Your task to perform on an android device: Open Youtube and go to the subscriptions tab Image 0: 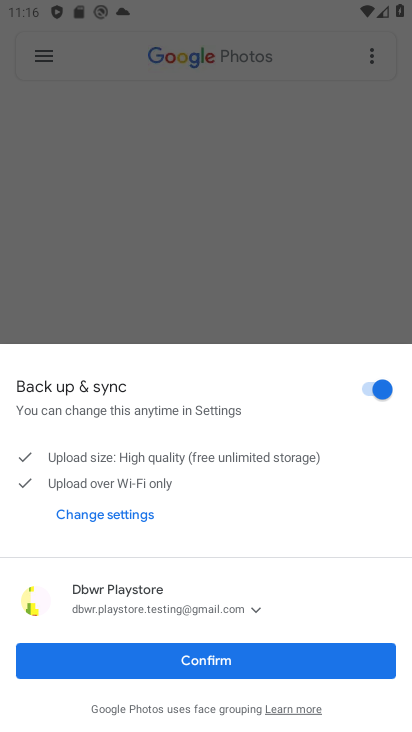
Step 0: press home button
Your task to perform on an android device: Open Youtube and go to the subscriptions tab Image 1: 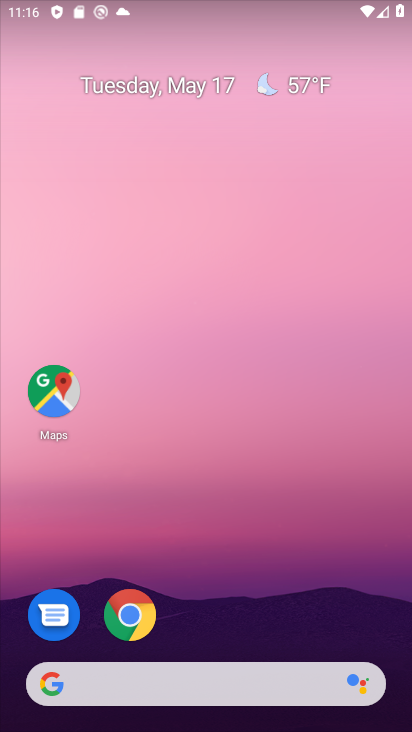
Step 1: drag from (333, 612) to (238, 10)
Your task to perform on an android device: Open Youtube and go to the subscriptions tab Image 2: 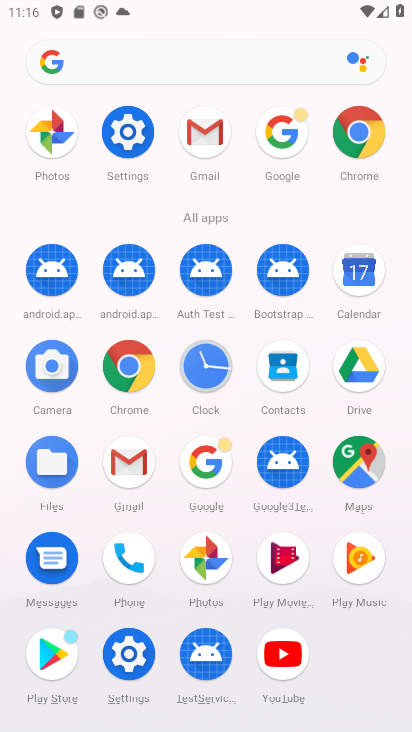
Step 2: click (292, 662)
Your task to perform on an android device: Open Youtube and go to the subscriptions tab Image 3: 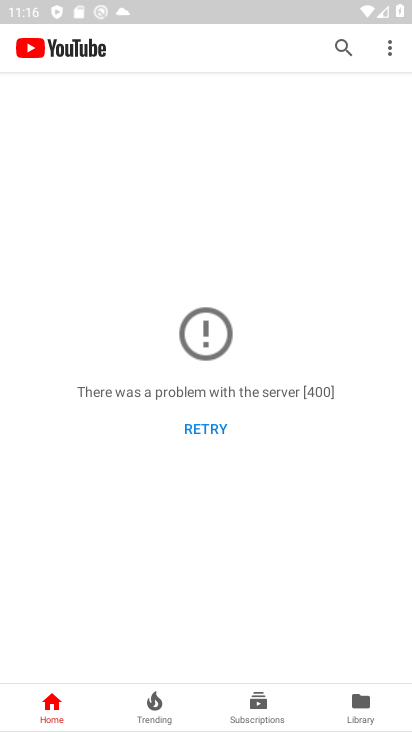
Step 3: click (214, 428)
Your task to perform on an android device: Open Youtube and go to the subscriptions tab Image 4: 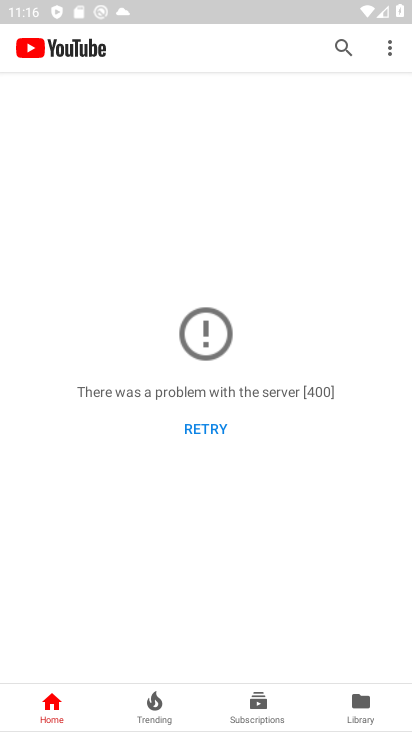
Step 4: click (246, 721)
Your task to perform on an android device: Open Youtube and go to the subscriptions tab Image 5: 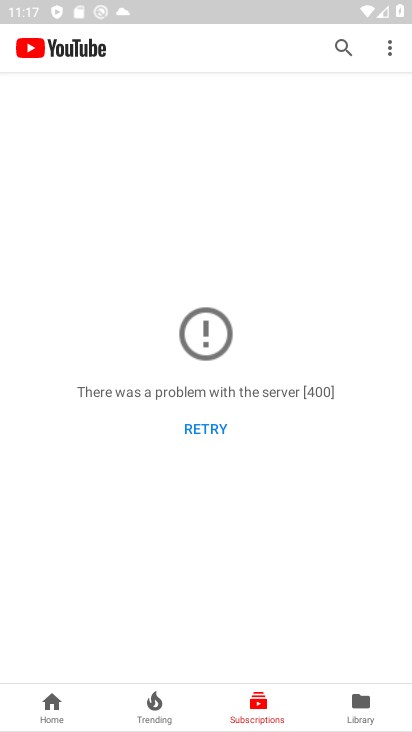
Step 5: task complete